Your task to perform on an android device: toggle show notifications on the lock screen Image 0: 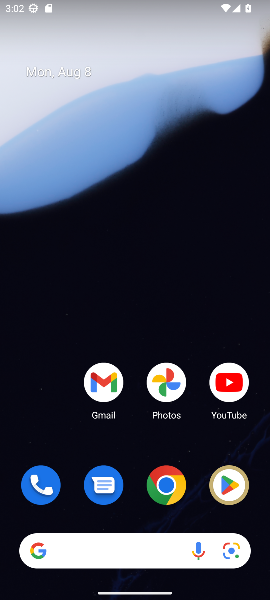
Step 0: drag from (170, 520) to (168, 169)
Your task to perform on an android device: toggle show notifications on the lock screen Image 1: 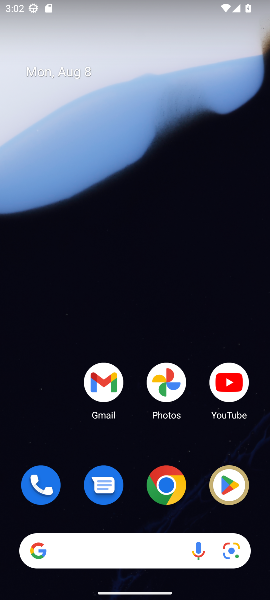
Step 1: drag from (137, 531) to (132, 104)
Your task to perform on an android device: toggle show notifications on the lock screen Image 2: 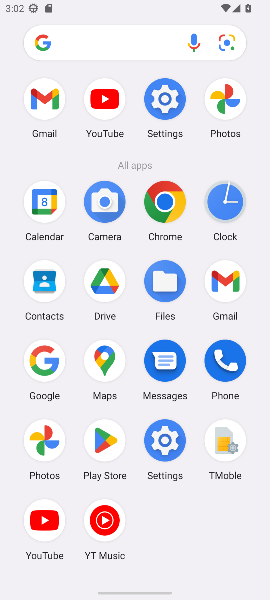
Step 2: drag from (164, 418) to (149, 74)
Your task to perform on an android device: toggle show notifications on the lock screen Image 3: 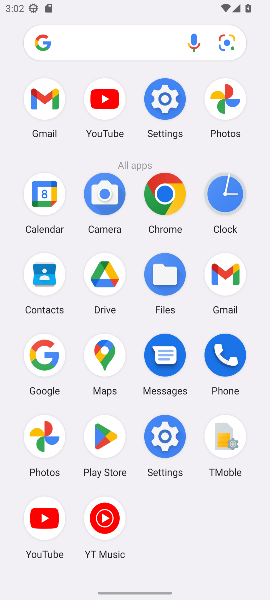
Step 3: click (149, 400)
Your task to perform on an android device: toggle show notifications on the lock screen Image 4: 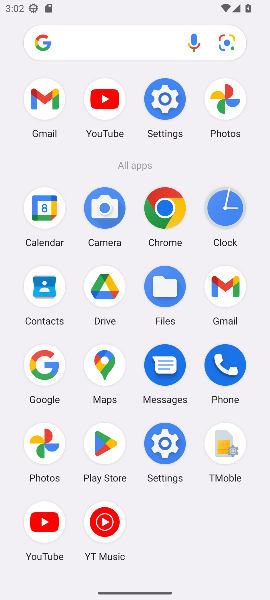
Step 4: click (163, 107)
Your task to perform on an android device: toggle show notifications on the lock screen Image 5: 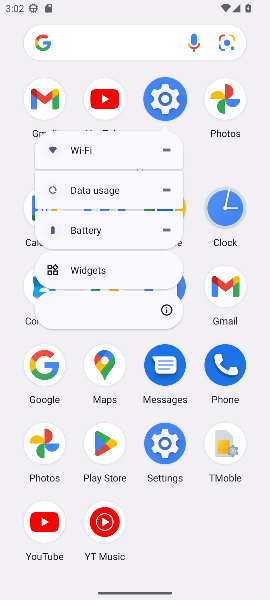
Step 5: click (164, 106)
Your task to perform on an android device: toggle show notifications on the lock screen Image 6: 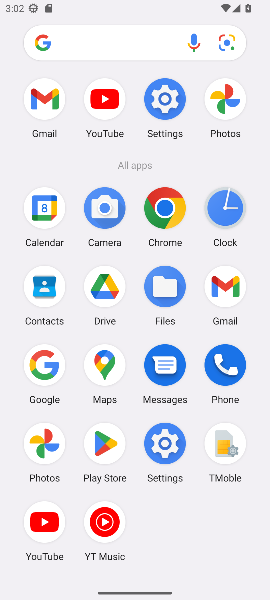
Step 6: click (164, 108)
Your task to perform on an android device: toggle show notifications on the lock screen Image 7: 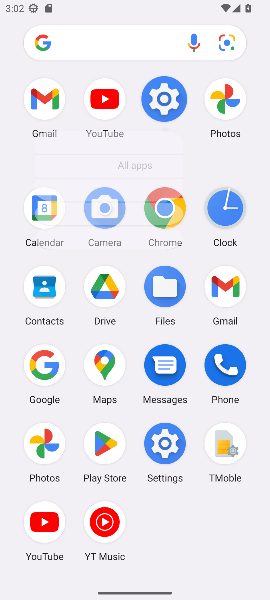
Step 7: click (163, 108)
Your task to perform on an android device: toggle show notifications on the lock screen Image 8: 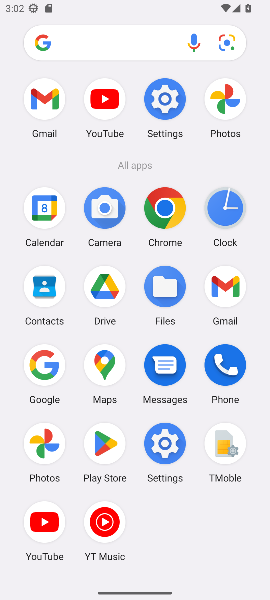
Step 8: click (163, 108)
Your task to perform on an android device: toggle show notifications on the lock screen Image 9: 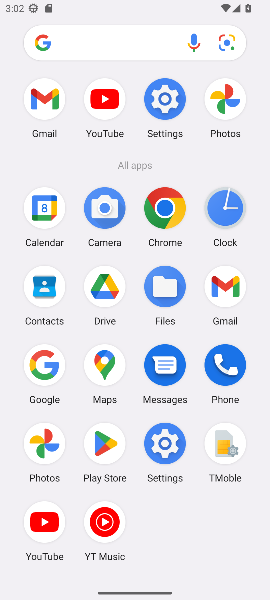
Step 9: click (163, 108)
Your task to perform on an android device: toggle show notifications on the lock screen Image 10: 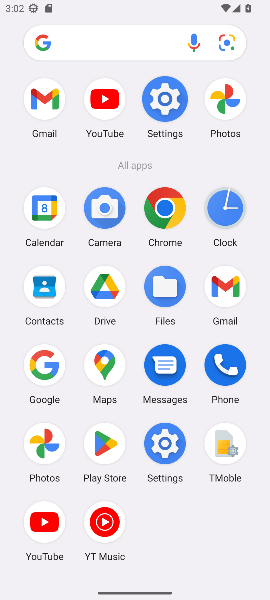
Step 10: click (162, 106)
Your task to perform on an android device: toggle show notifications on the lock screen Image 11: 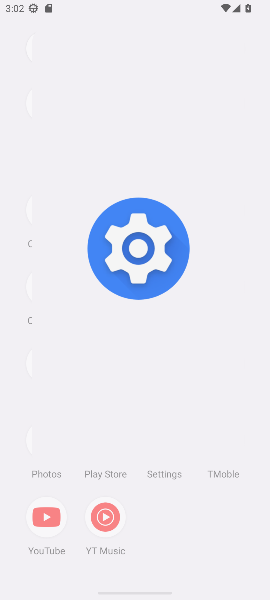
Step 11: click (162, 106)
Your task to perform on an android device: toggle show notifications on the lock screen Image 12: 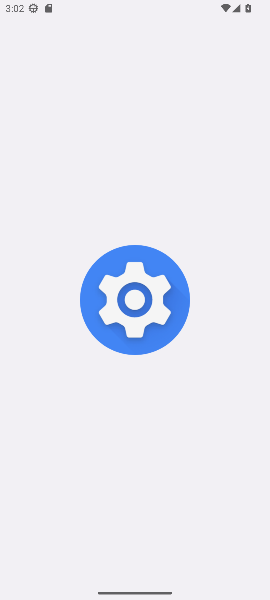
Step 12: click (162, 106)
Your task to perform on an android device: toggle show notifications on the lock screen Image 13: 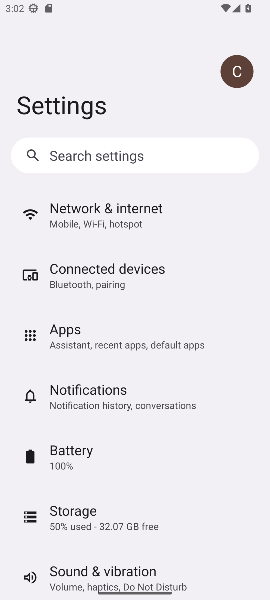
Step 13: click (76, 387)
Your task to perform on an android device: toggle show notifications on the lock screen Image 14: 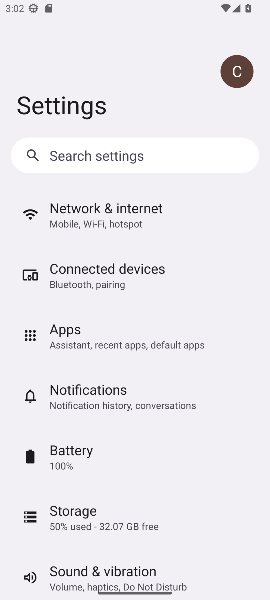
Step 14: click (76, 387)
Your task to perform on an android device: toggle show notifications on the lock screen Image 15: 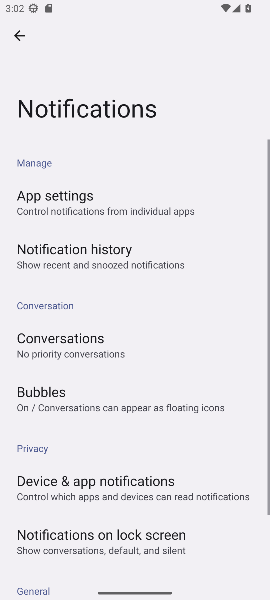
Step 15: click (77, 389)
Your task to perform on an android device: toggle show notifications on the lock screen Image 16: 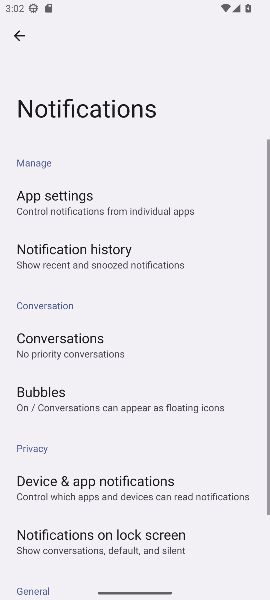
Step 16: click (77, 389)
Your task to perform on an android device: toggle show notifications on the lock screen Image 17: 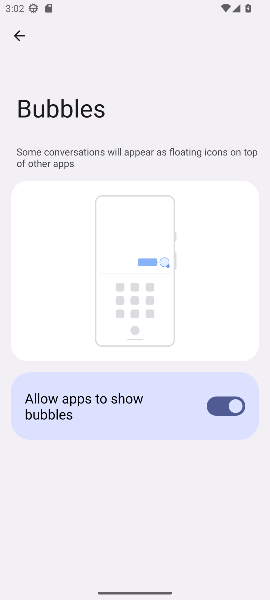
Step 17: click (22, 41)
Your task to perform on an android device: toggle show notifications on the lock screen Image 18: 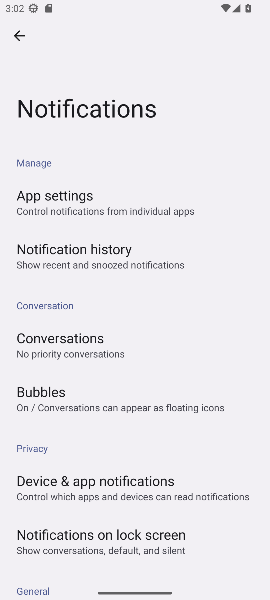
Step 18: click (116, 491)
Your task to perform on an android device: toggle show notifications on the lock screen Image 19: 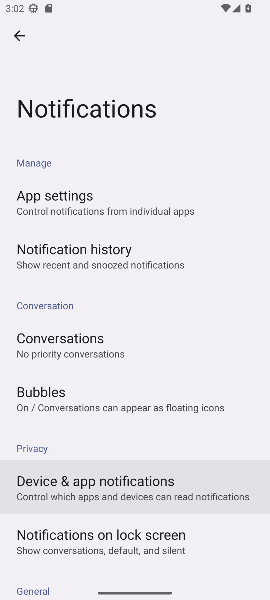
Step 19: click (101, 544)
Your task to perform on an android device: toggle show notifications on the lock screen Image 20: 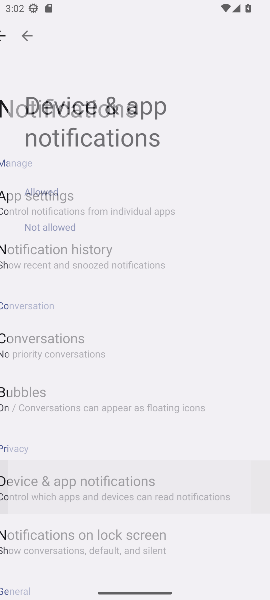
Step 20: click (99, 541)
Your task to perform on an android device: toggle show notifications on the lock screen Image 21: 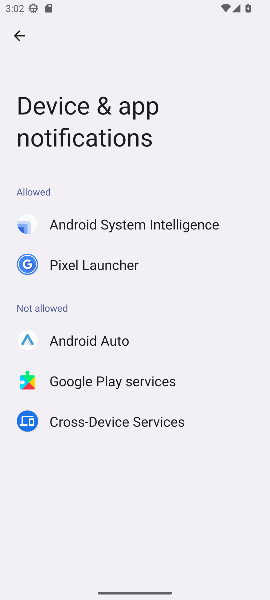
Step 21: click (99, 541)
Your task to perform on an android device: toggle show notifications on the lock screen Image 22: 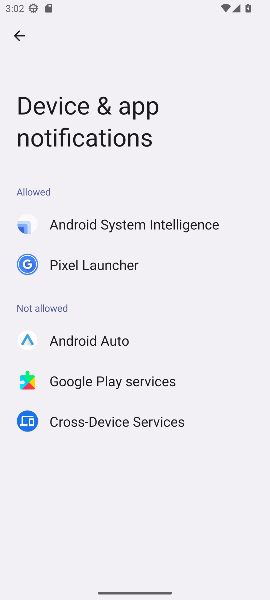
Step 22: click (15, 29)
Your task to perform on an android device: toggle show notifications on the lock screen Image 23: 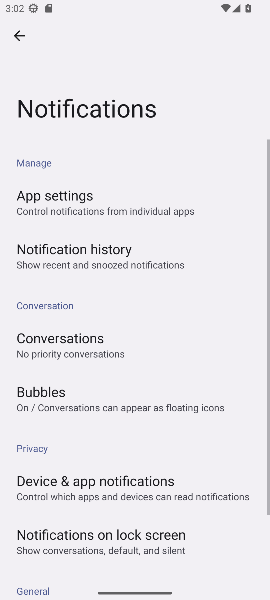
Step 23: click (78, 537)
Your task to perform on an android device: toggle show notifications on the lock screen Image 24: 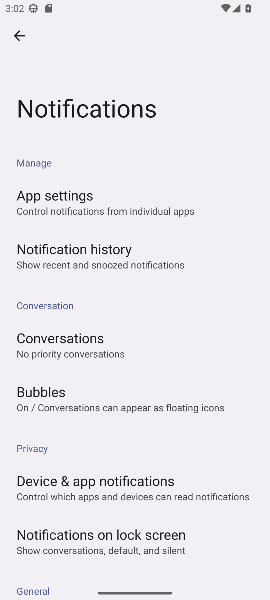
Step 24: click (78, 537)
Your task to perform on an android device: toggle show notifications on the lock screen Image 25: 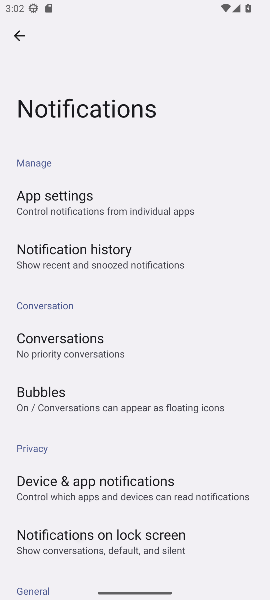
Step 25: click (85, 541)
Your task to perform on an android device: toggle show notifications on the lock screen Image 26: 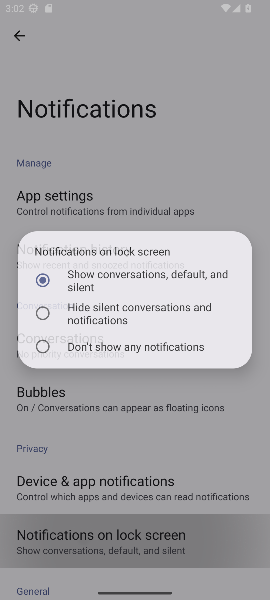
Step 26: click (85, 541)
Your task to perform on an android device: toggle show notifications on the lock screen Image 27: 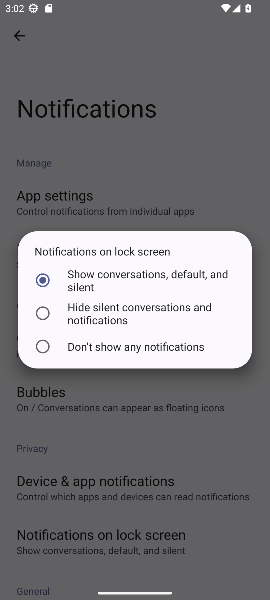
Step 27: click (48, 283)
Your task to perform on an android device: toggle show notifications on the lock screen Image 28: 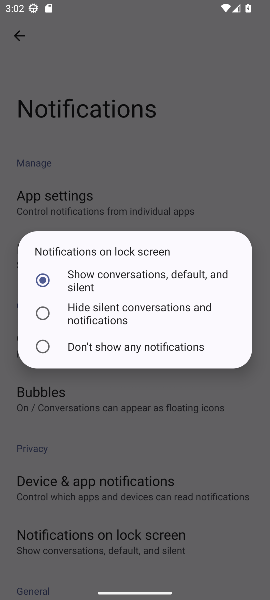
Step 28: task complete